Your task to perform on an android device: Open maps Image 0: 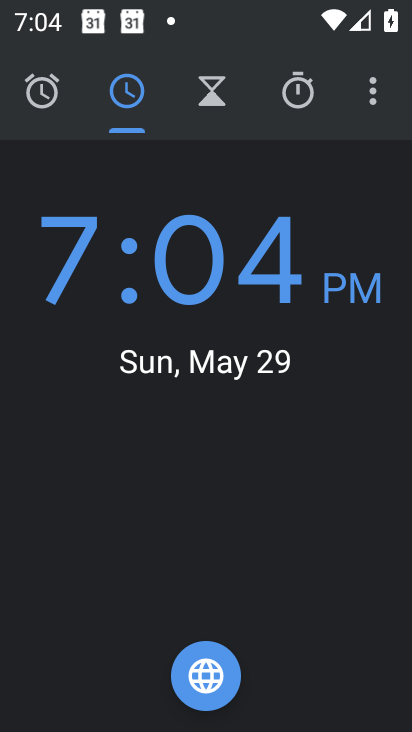
Step 0: press home button
Your task to perform on an android device: Open maps Image 1: 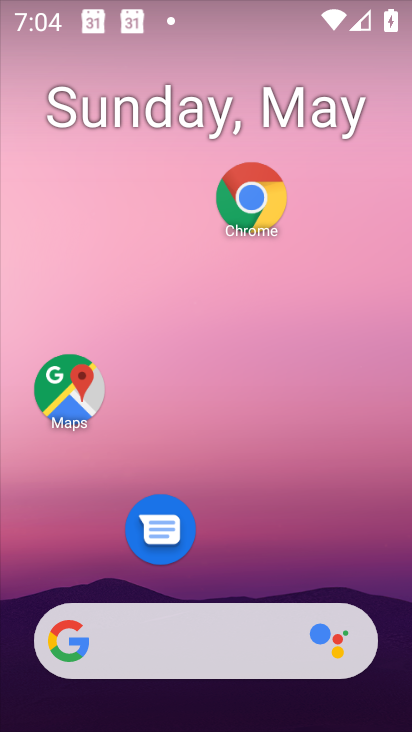
Step 1: drag from (165, 594) to (136, 278)
Your task to perform on an android device: Open maps Image 2: 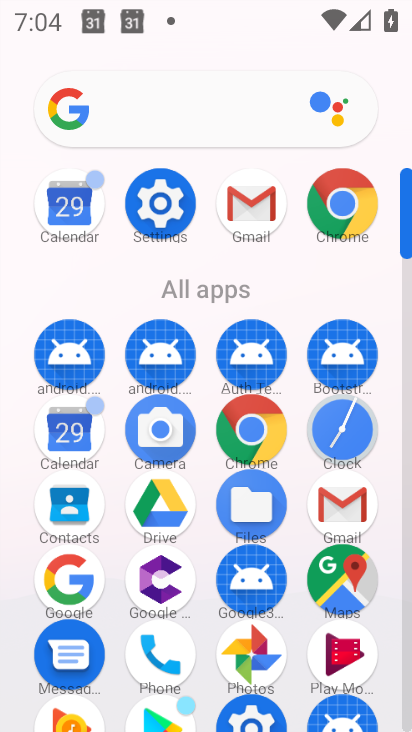
Step 2: drag from (204, 651) to (212, 392)
Your task to perform on an android device: Open maps Image 3: 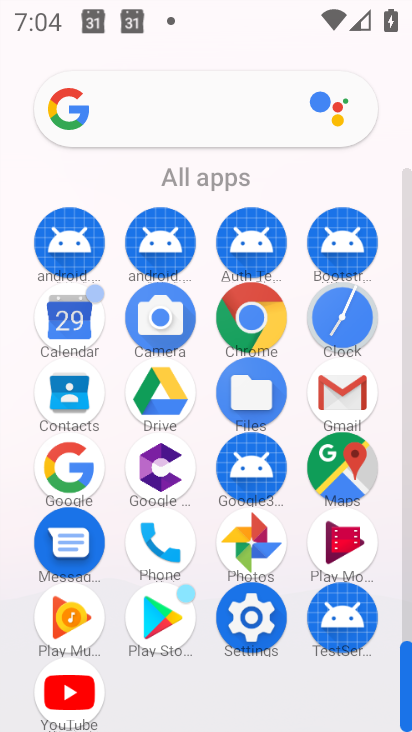
Step 3: click (358, 464)
Your task to perform on an android device: Open maps Image 4: 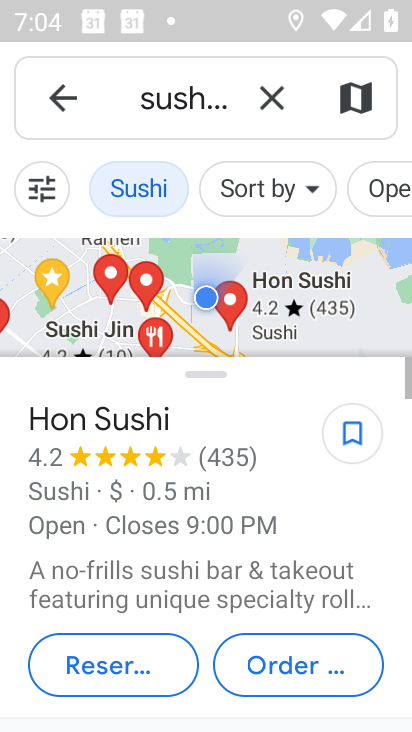
Step 4: task complete